Your task to perform on an android device: Open Google Maps and go to "Timeline" Image 0: 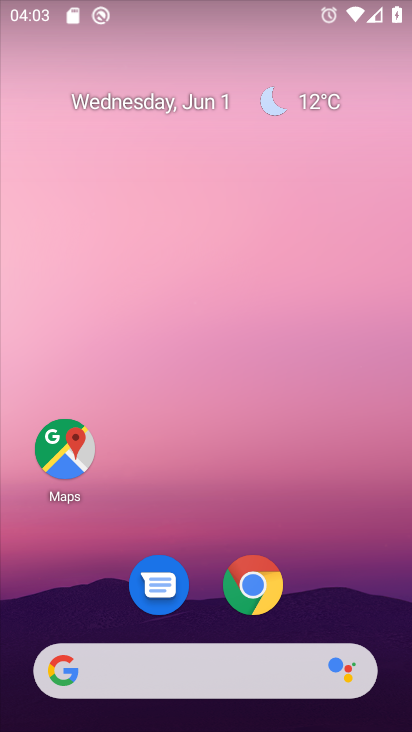
Step 0: click (65, 428)
Your task to perform on an android device: Open Google Maps and go to "Timeline" Image 1: 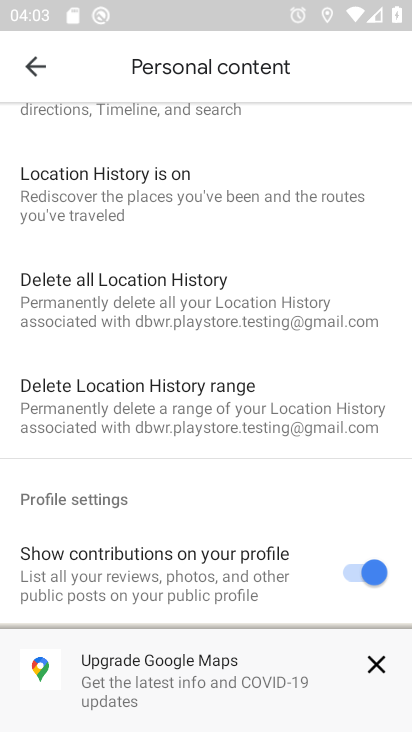
Step 1: click (35, 56)
Your task to perform on an android device: Open Google Maps and go to "Timeline" Image 2: 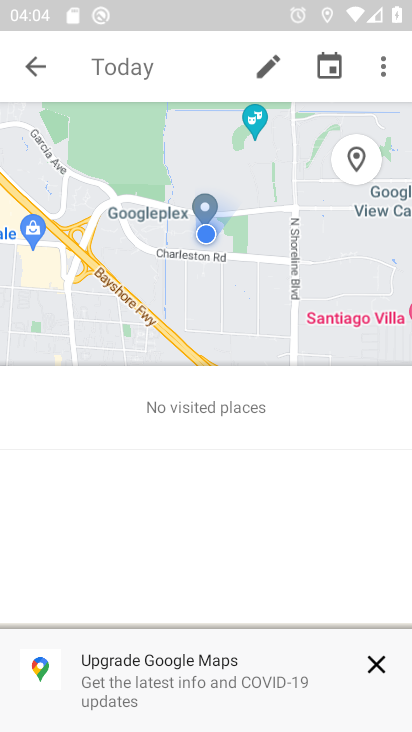
Step 2: click (35, 55)
Your task to perform on an android device: Open Google Maps and go to "Timeline" Image 3: 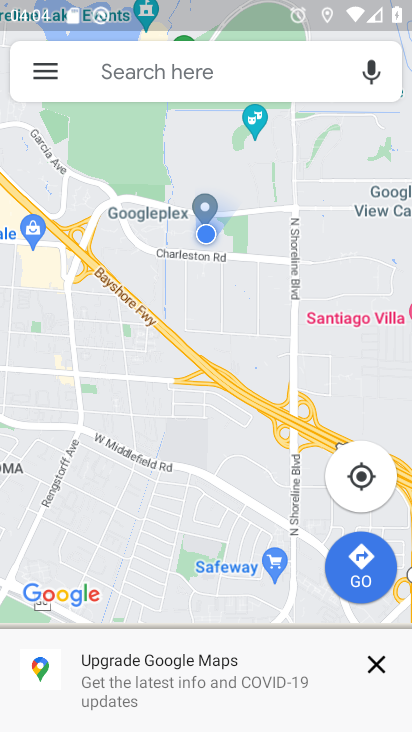
Step 3: click (40, 66)
Your task to perform on an android device: Open Google Maps and go to "Timeline" Image 4: 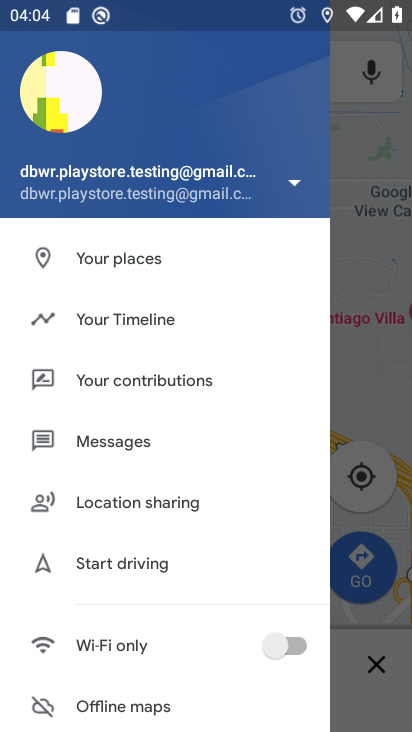
Step 4: click (125, 317)
Your task to perform on an android device: Open Google Maps and go to "Timeline" Image 5: 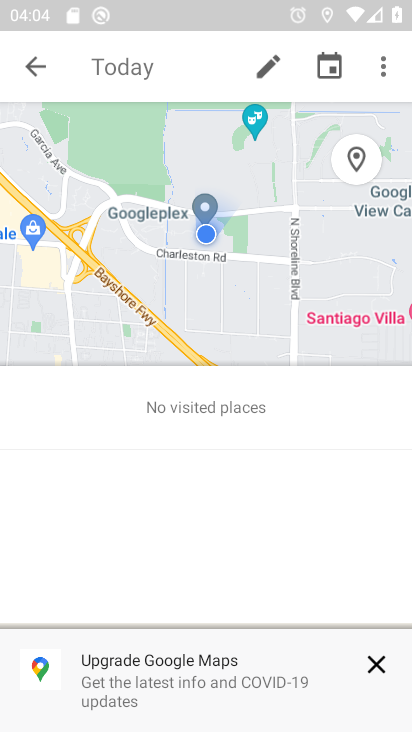
Step 5: task complete